Your task to perform on an android device: check data usage Image 0: 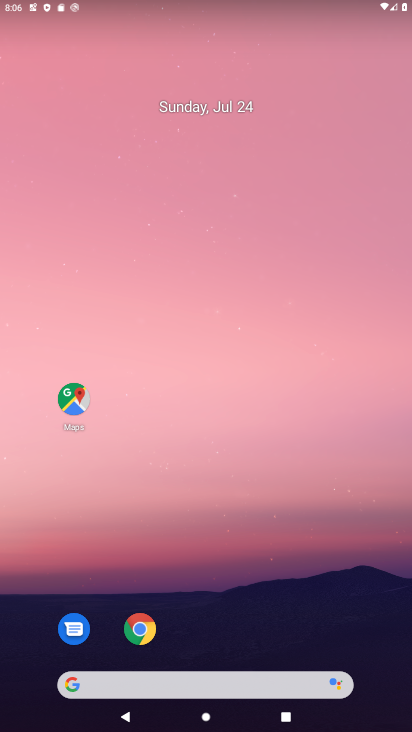
Step 0: drag from (230, 660) to (278, 161)
Your task to perform on an android device: check data usage Image 1: 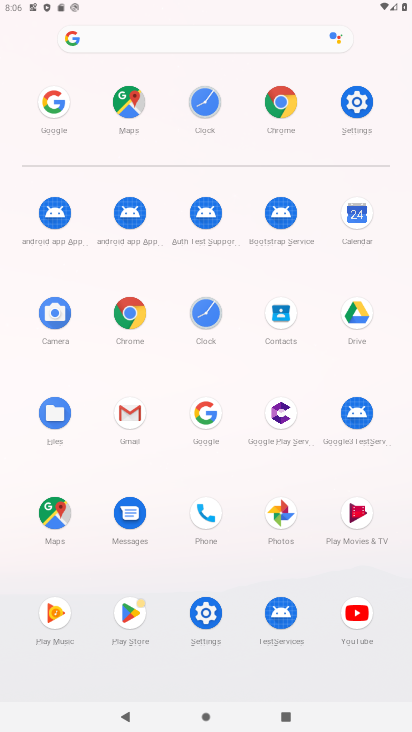
Step 1: click (369, 116)
Your task to perform on an android device: check data usage Image 2: 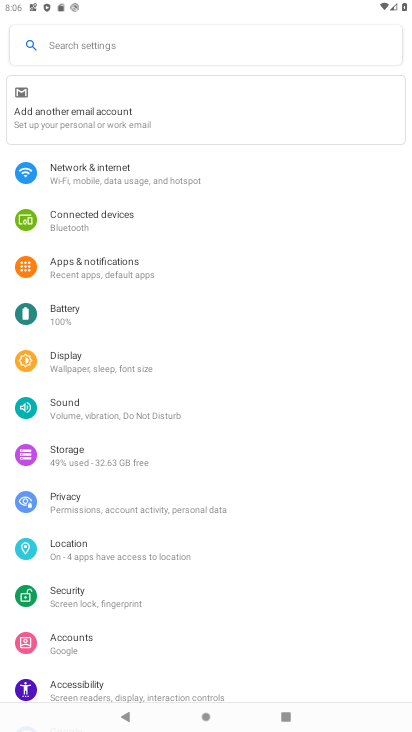
Step 2: click (145, 175)
Your task to perform on an android device: check data usage Image 3: 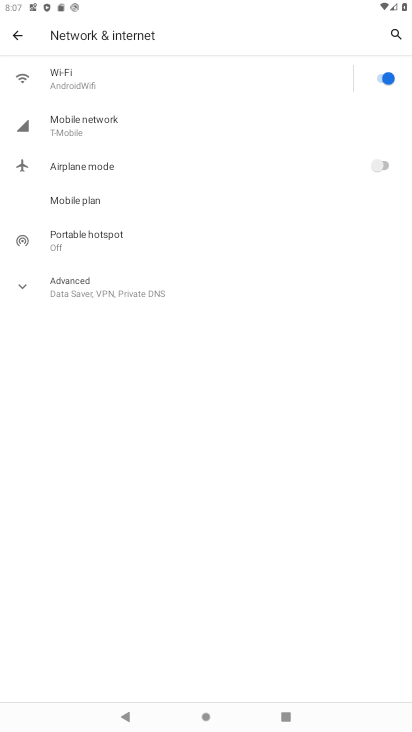
Step 3: click (144, 127)
Your task to perform on an android device: check data usage Image 4: 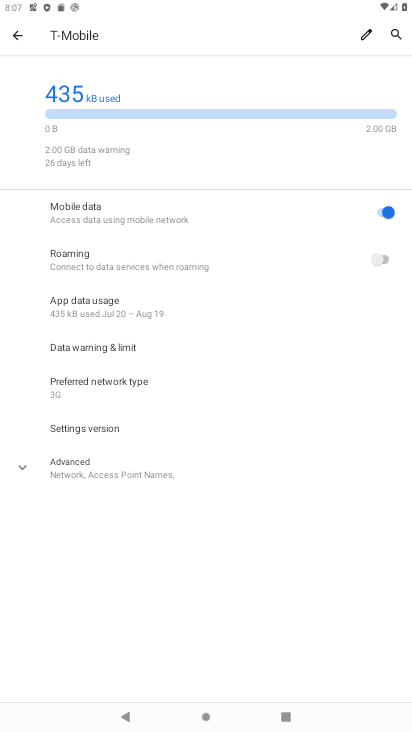
Step 4: click (122, 306)
Your task to perform on an android device: check data usage Image 5: 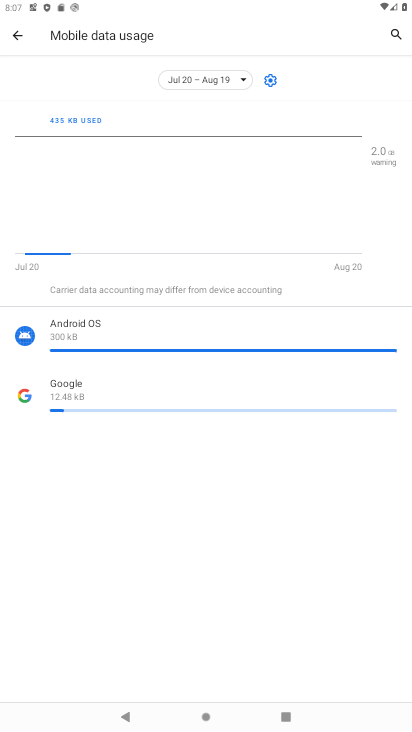
Step 5: task complete